Your task to perform on an android device: turn off picture-in-picture Image 0: 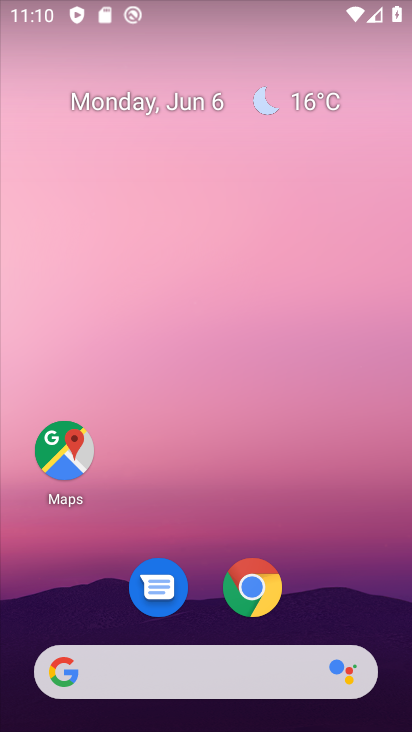
Step 0: drag from (290, 433) to (234, 0)
Your task to perform on an android device: turn off picture-in-picture Image 1: 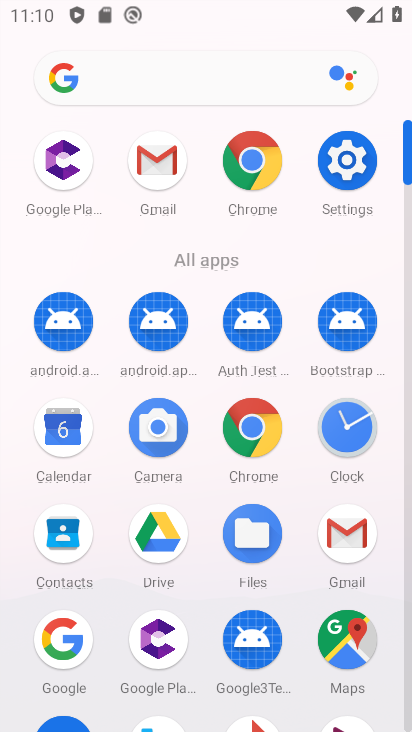
Step 1: drag from (19, 558) to (8, 173)
Your task to perform on an android device: turn off picture-in-picture Image 2: 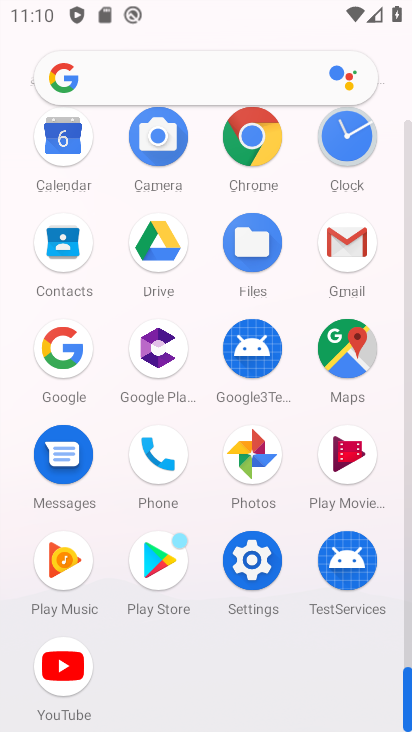
Step 2: click (254, 558)
Your task to perform on an android device: turn off picture-in-picture Image 3: 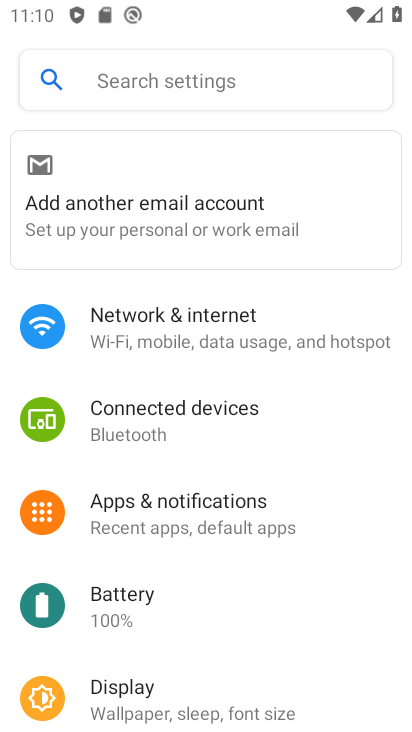
Step 3: drag from (288, 609) to (286, 229)
Your task to perform on an android device: turn off picture-in-picture Image 4: 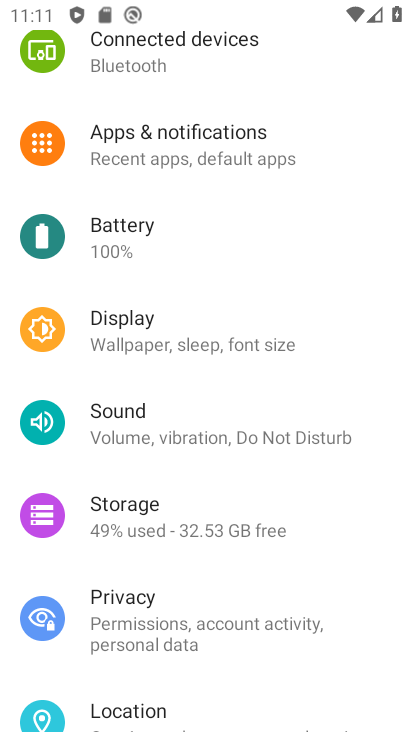
Step 4: drag from (298, 579) to (263, 233)
Your task to perform on an android device: turn off picture-in-picture Image 5: 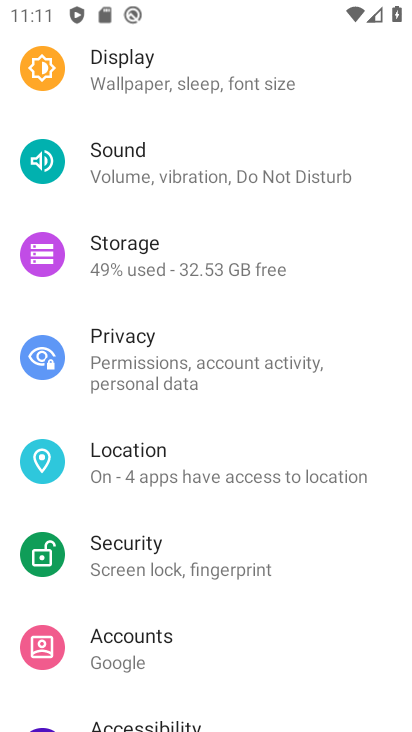
Step 5: drag from (275, 604) to (295, 221)
Your task to perform on an android device: turn off picture-in-picture Image 6: 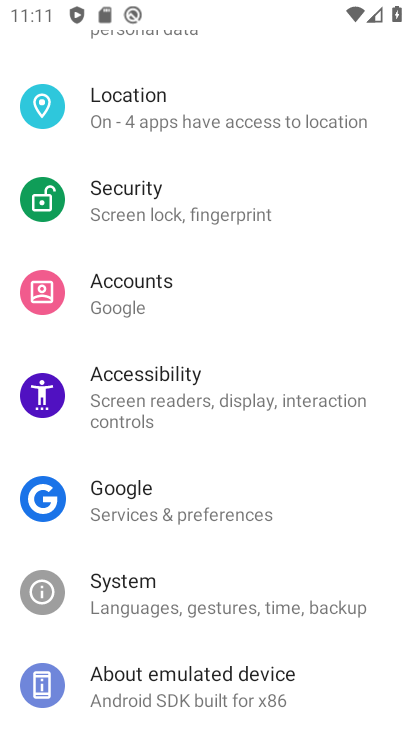
Step 6: drag from (236, 569) to (238, 203)
Your task to perform on an android device: turn off picture-in-picture Image 7: 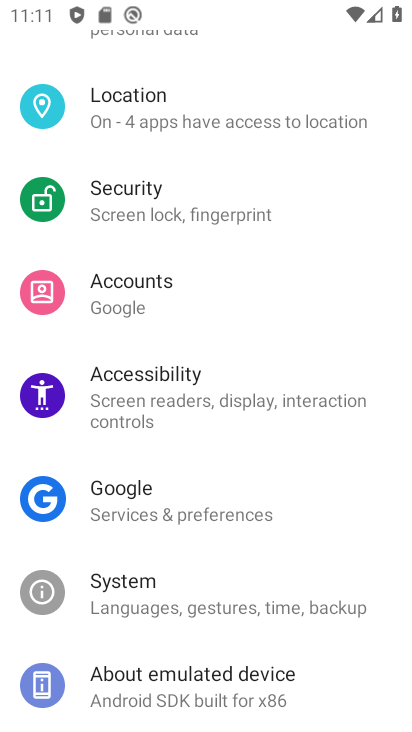
Step 7: drag from (247, 103) to (243, 487)
Your task to perform on an android device: turn off picture-in-picture Image 8: 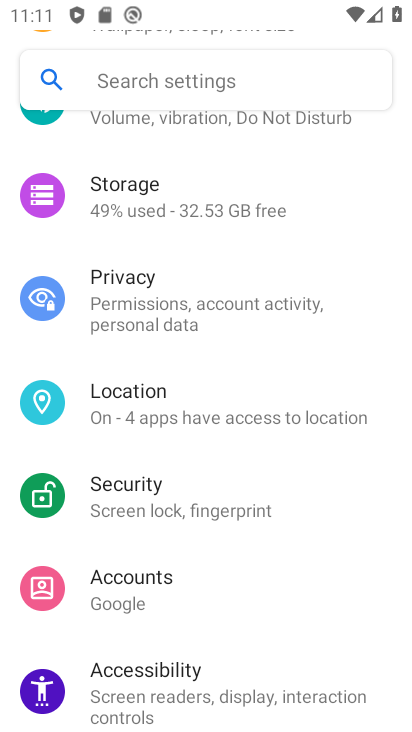
Step 8: drag from (222, 206) to (223, 551)
Your task to perform on an android device: turn off picture-in-picture Image 9: 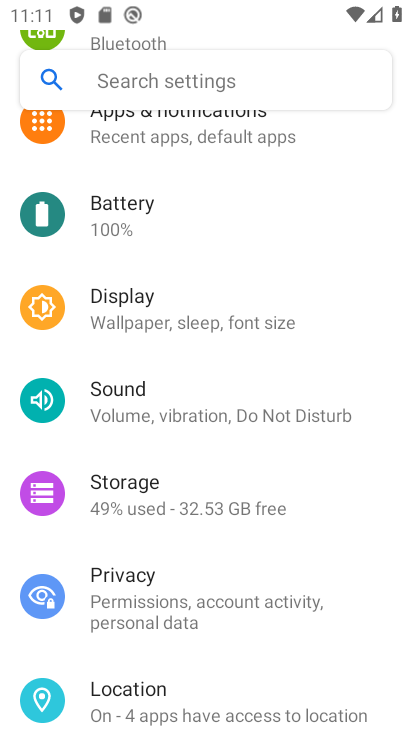
Step 9: drag from (227, 225) to (219, 566)
Your task to perform on an android device: turn off picture-in-picture Image 10: 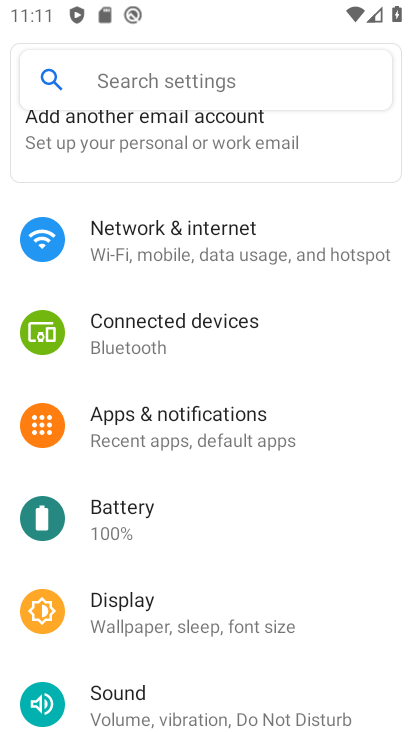
Step 10: click (200, 423)
Your task to perform on an android device: turn off picture-in-picture Image 11: 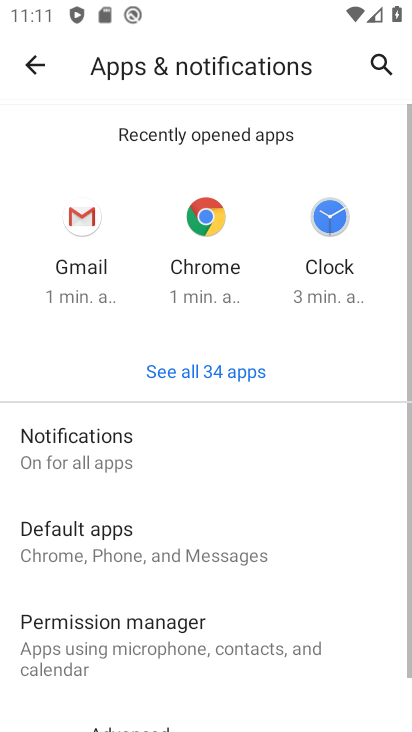
Step 11: drag from (230, 646) to (265, 263)
Your task to perform on an android device: turn off picture-in-picture Image 12: 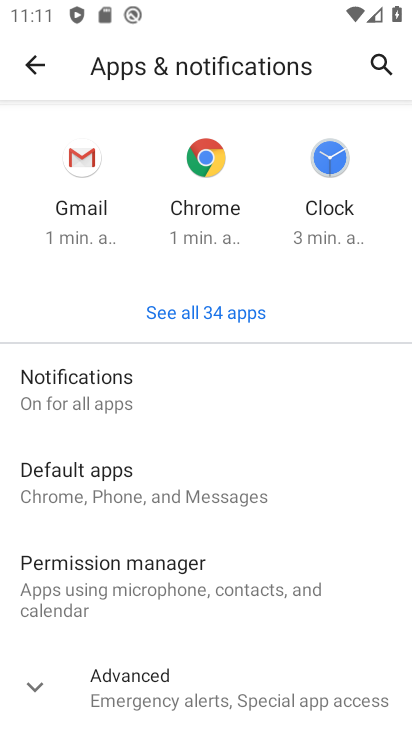
Step 12: click (37, 682)
Your task to perform on an android device: turn off picture-in-picture Image 13: 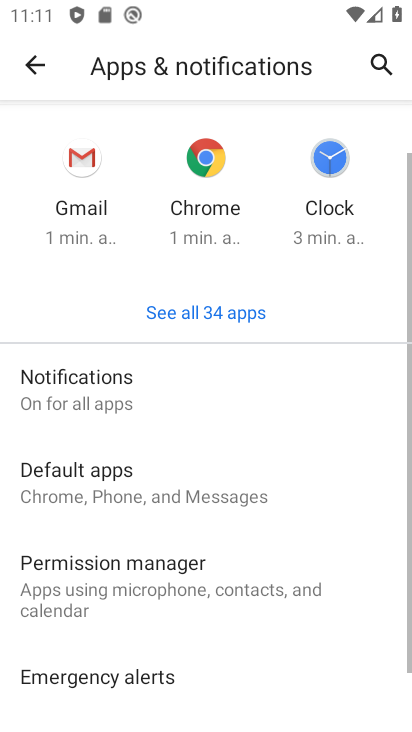
Step 13: drag from (263, 600) to (266, 259)
Your task to perform on an android device: turn off picture-in-picture Image 14: 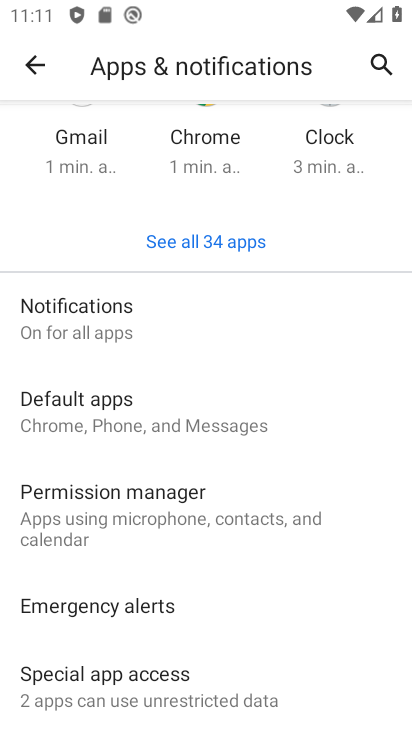
Step 14: click (145, 667)
Your task to perform on an android device: turn off picture-in-picture Image 15: 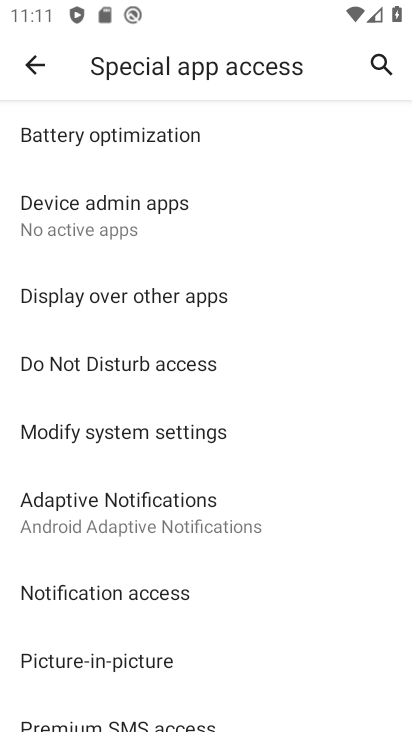
Step 15: drag from (226, 510) to (206, 244)
Your task to perform on an android device: turn off picture-in-picture Image 16: 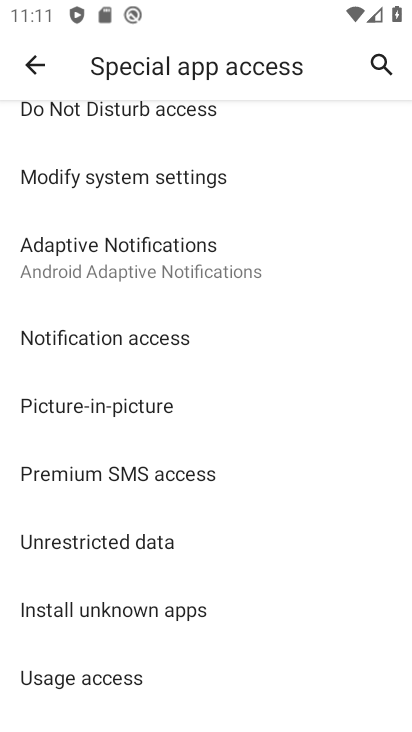
Step 16: click (74, 428)
Your task to perform on an android device: turn off picture-in-picture Image 17: 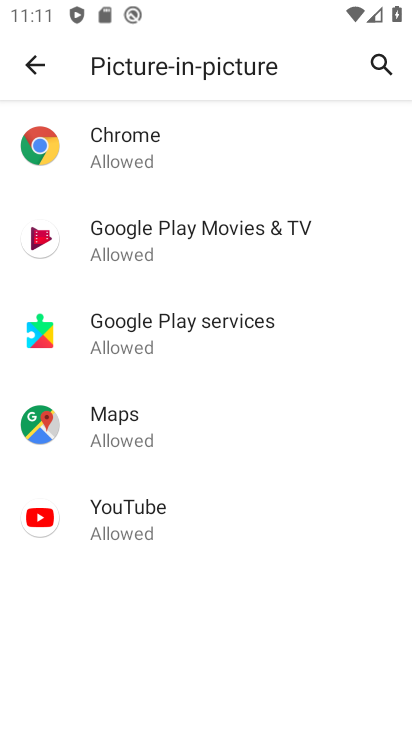
Step 17: click (152, 156)
Your task to perform on an android device: turn off picture-in-picture Image 18: 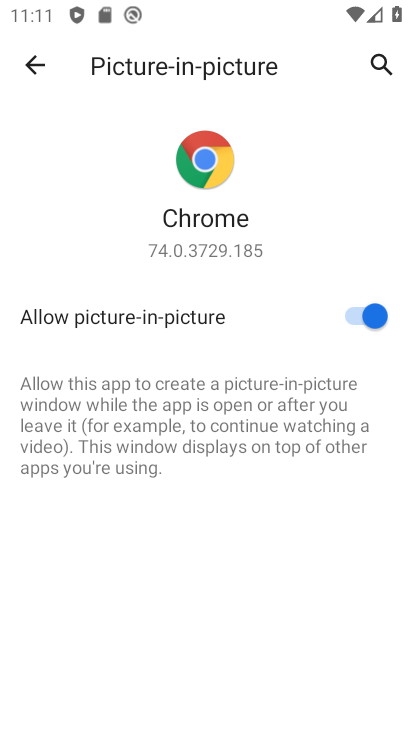
Step 18: click (353, 310)
Your task to perform on an android device: turn off picture-in-picture Image 19: 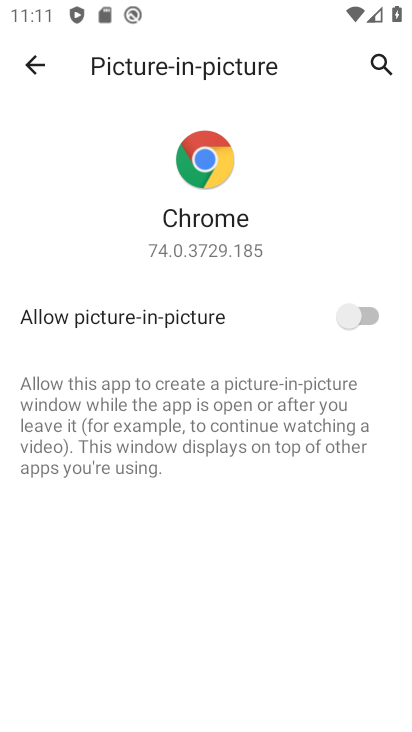
Step 19: click (43, 62)
Your task to perform on an android device: turn off picture-in-picture Image 20: 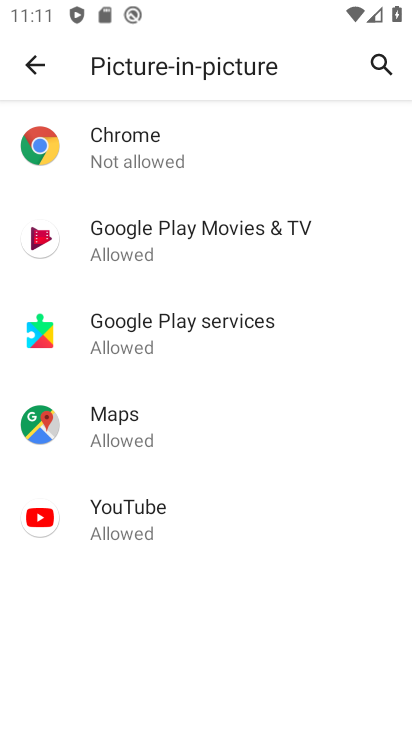
Step 20: click (129, 218)
Your task to perform on an android device: turn off picture-in-picture Image 21: 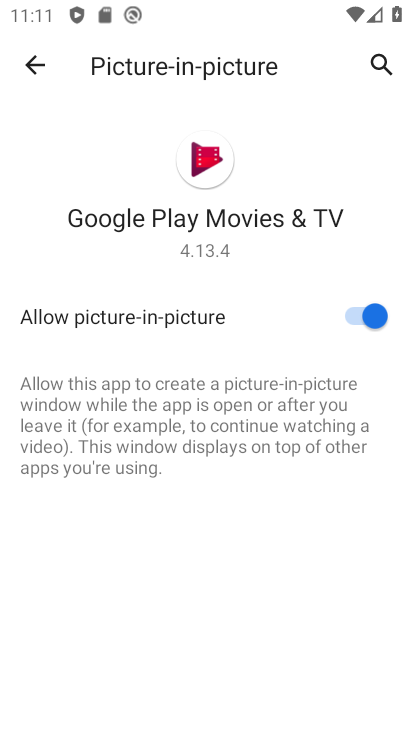
Step 21: click (357, 306)
Your task to perform on an android device: turn off picture-in-picture Image 22: 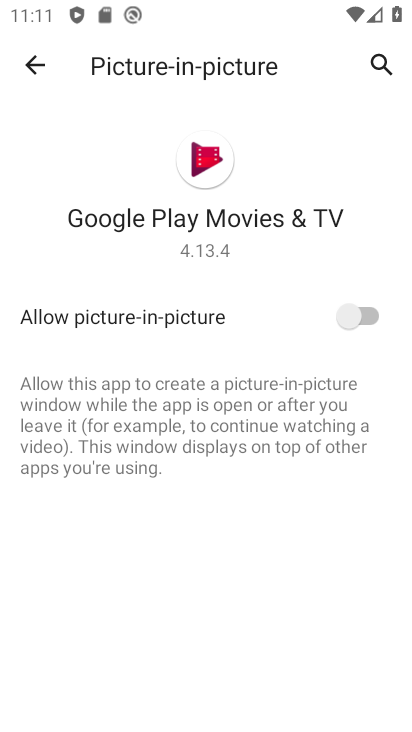
Step 22: click (33, 62)
Your task to perform on an android device: turn off picture-in-picture Image 23: 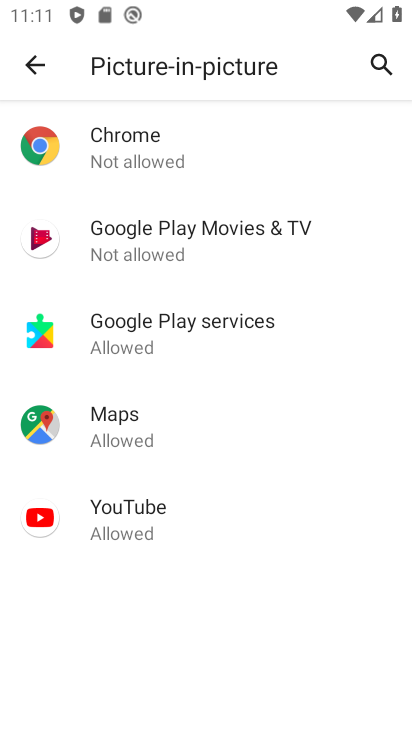
Step 23: click (140, 355)
Your task to perform on an android device: turn off picture-in-picture Image 24: 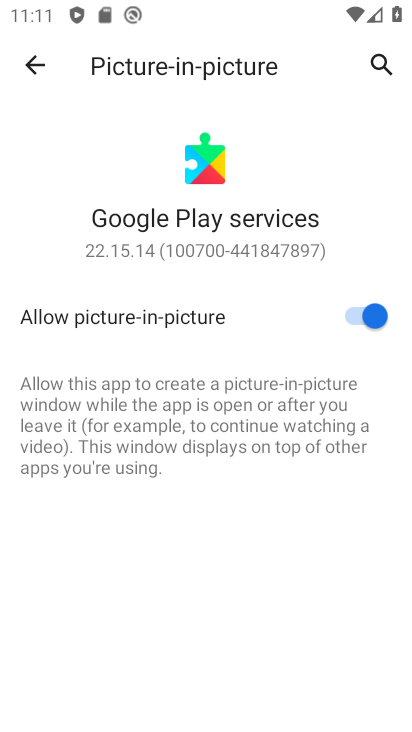
Step 24: click (357, 303)
Your task to perform on an android device: turn off picture-in-picture Image 25: 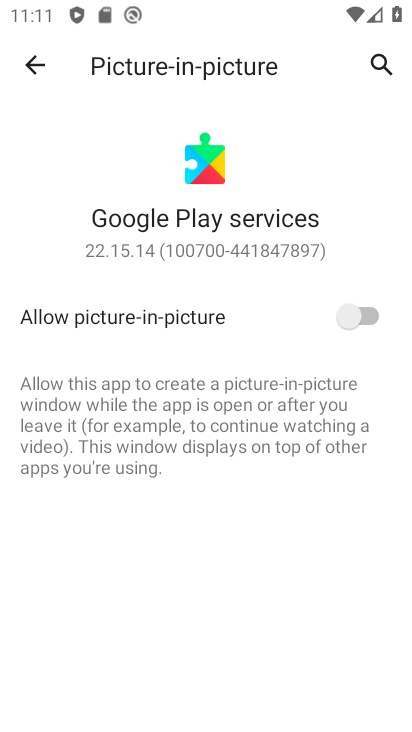
Step 25: click (29, 66)
Your task to perform on an android device: turn off picture-in-picture Image 26: 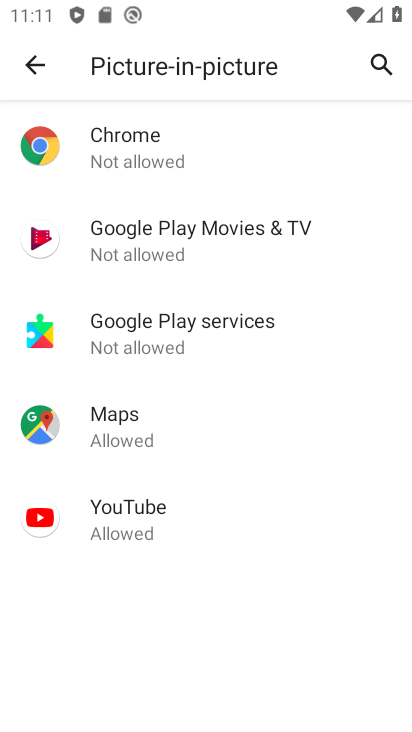
Step 26: click (134, 423)
Your task to perform on an android device: turn off picture-in-picture Image 27: 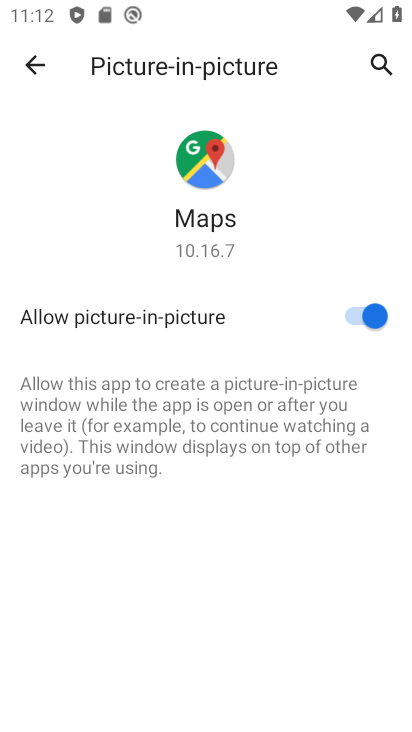
Step 27: click (353, 315)
Your task to perform on an android device: turn off picture-in-picture Image 28: 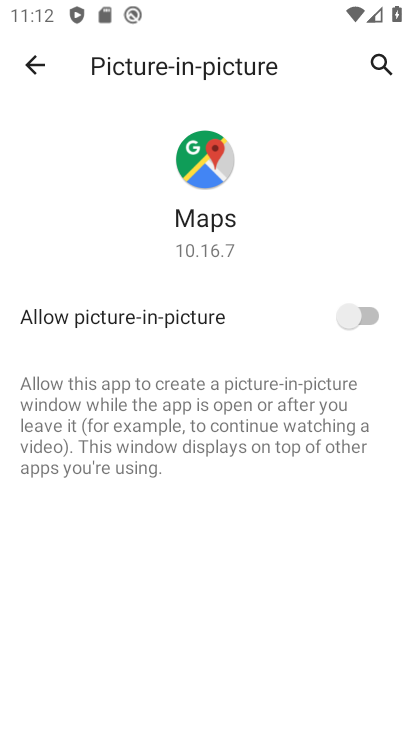
Step 28: click (17, 70)
Your task to perform on an android device: turn off picture-in-picture Image 29: 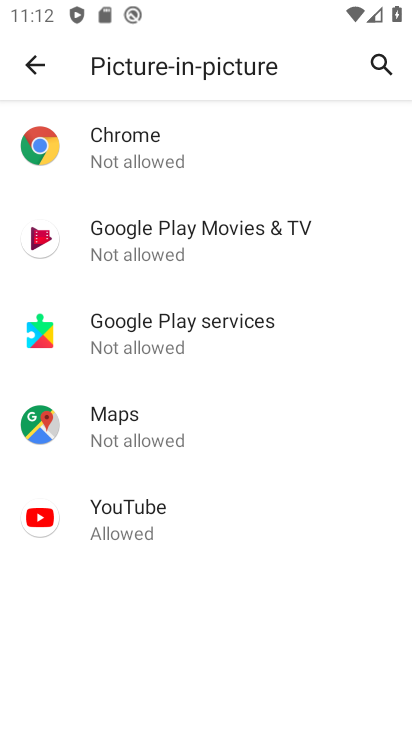
Step 29: click (118, 522)
Your task to perform on an android device: turn off picture-in-picture Image 30: 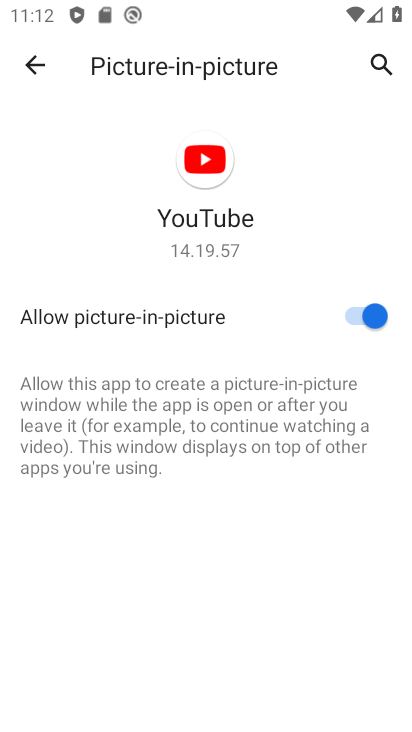
Step 30: click (350, 306)
Your task to perform on an android device: turn off picture-in-picture Image 31: 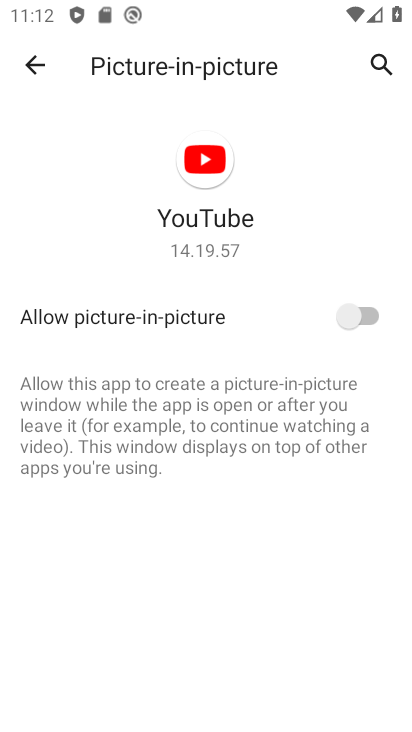
Step 31: click (20, 63)
Your task to perform on an android device: turn off picture-in-picture Image 32: 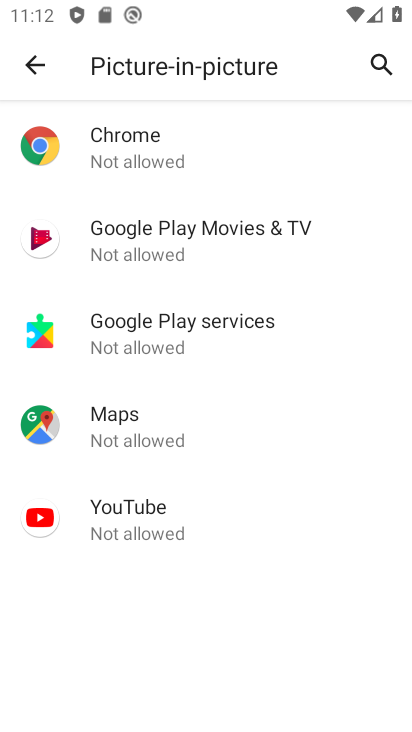
Step 32: task complete